Your task to perform on an android device: toggle sleep mode Image 0: 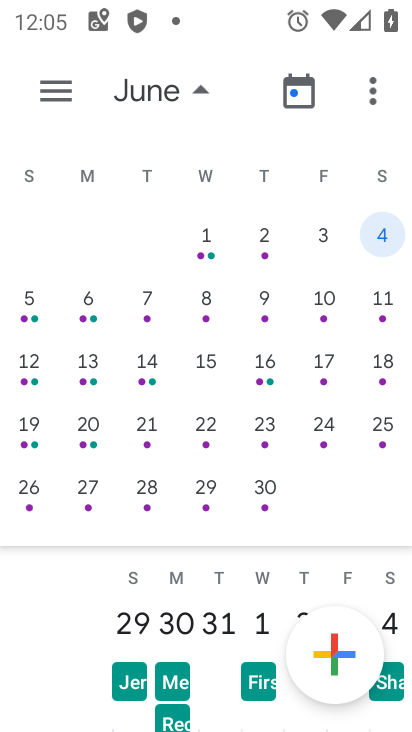
Step 0: press home button
Your task to perform on an android device: toggle sleep mode Image 1: 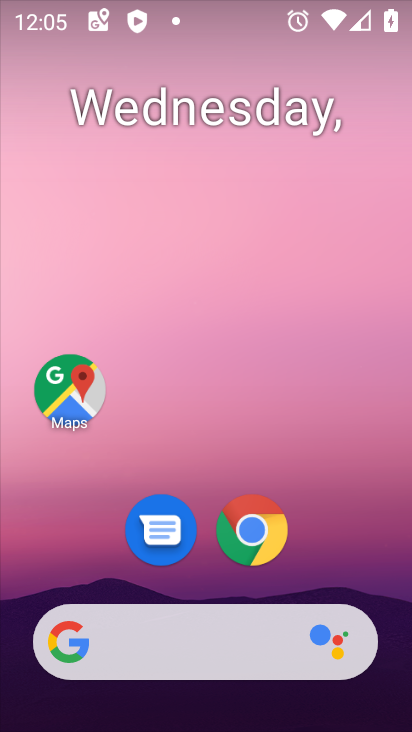
Step 1: drag from (201, 577) to (234, 260)
Your task to perform on an android device: toggle sleep mode Image 2: 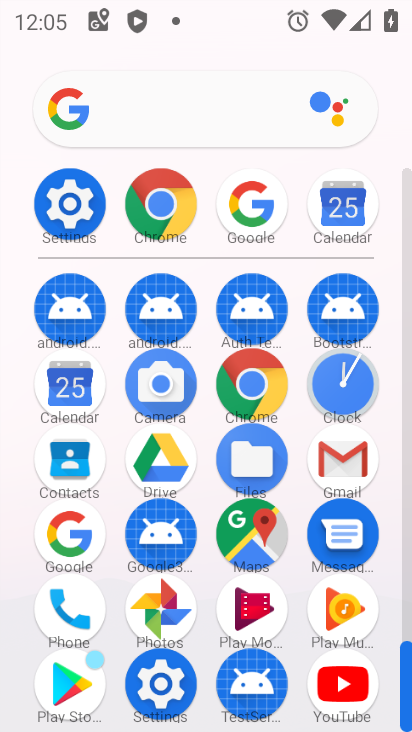
Step 2: click (70, 200)
Your task to perform on an android device: toggle sleep mode Image 3: 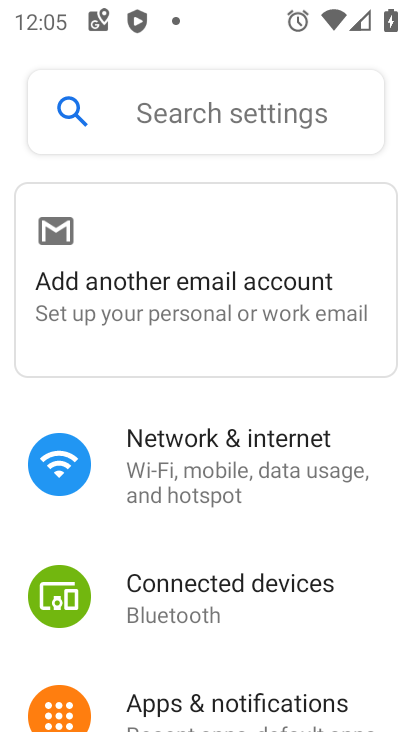
Step 3: drag from (202, 645) to (283, 265)
Your task to perform on an android device: toggle sleep mode Image 4: 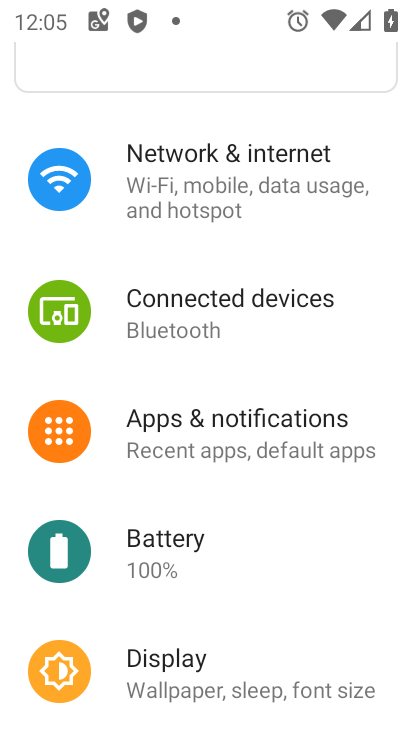
Step 4: drag from (181, 575) to (243, 277)
Your task to perform on an android device: toggle sleep mode Image 5: 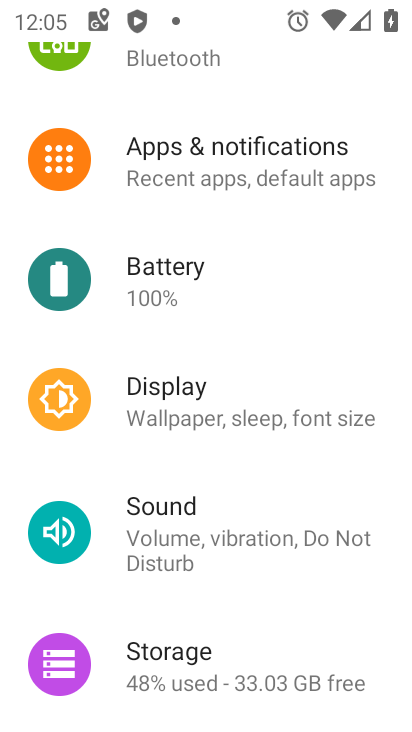
Step 5: click (187, 400)
Your task to perform on an android device: toggle sleep mode Image 6: 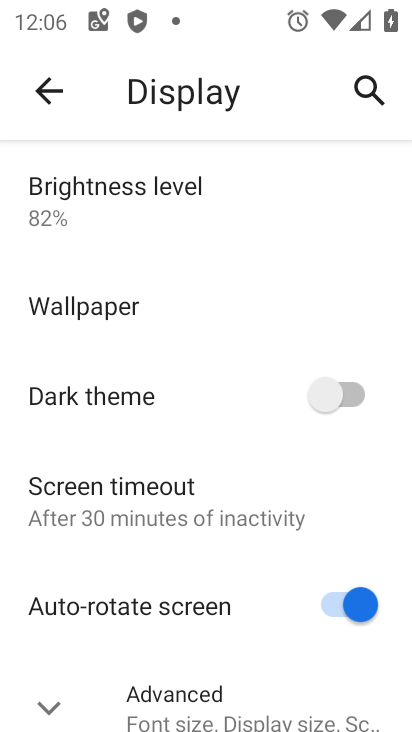
Step 6: task complete